Your task to perform on an android device: Go to location settings Image 0: 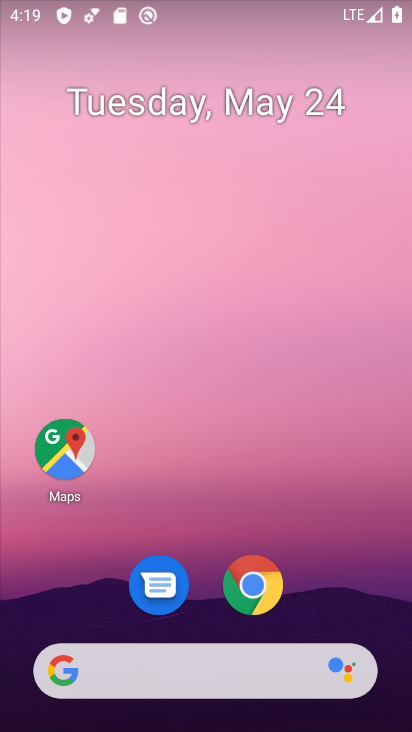
Step 0: drag from (261, 501) to (247, 54)
Your task to perform on an android device: Go to location settings Image 1: 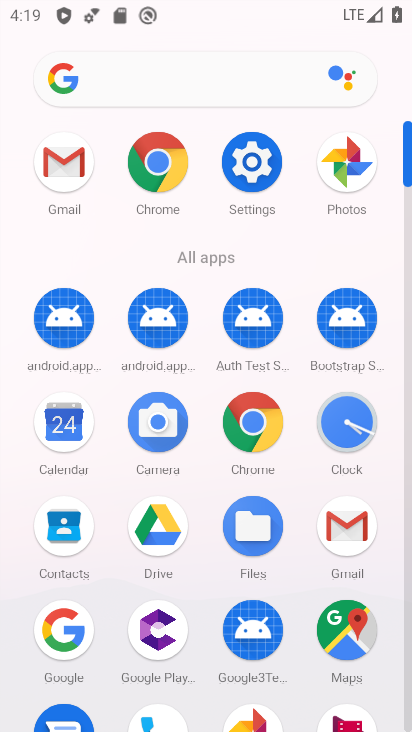
Step 1: click (242, 154)
Your task to perform on an android device: Go to location settings Image 2: 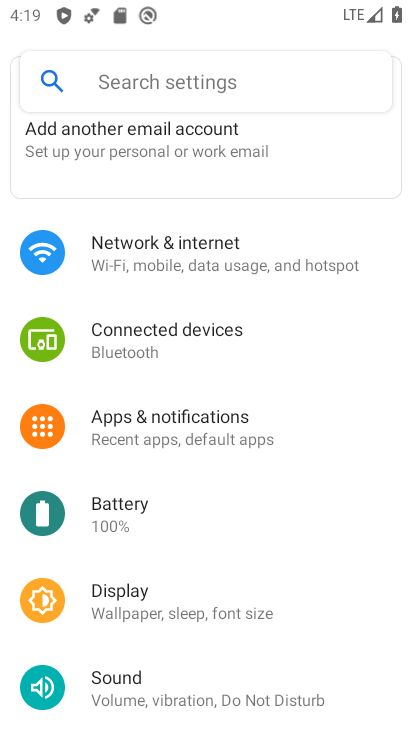
Step 2: drag from (201, 587) to (239, 64)
Your task to perform on an android device: Go to location settings Image 3: 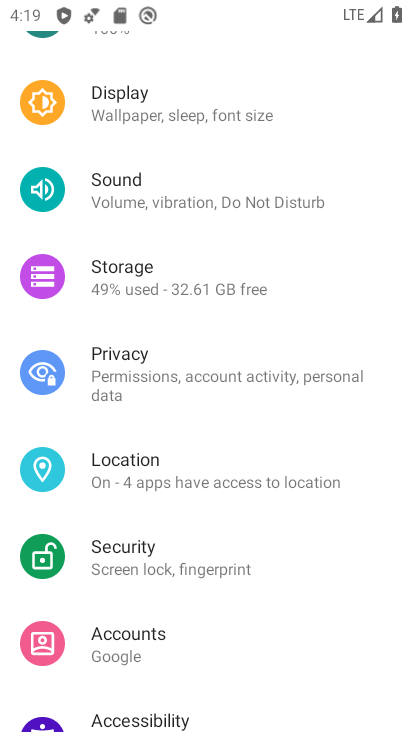
Step 3: click (196, 473)
Your task to perform on an android device: Go to location settings Image 4: 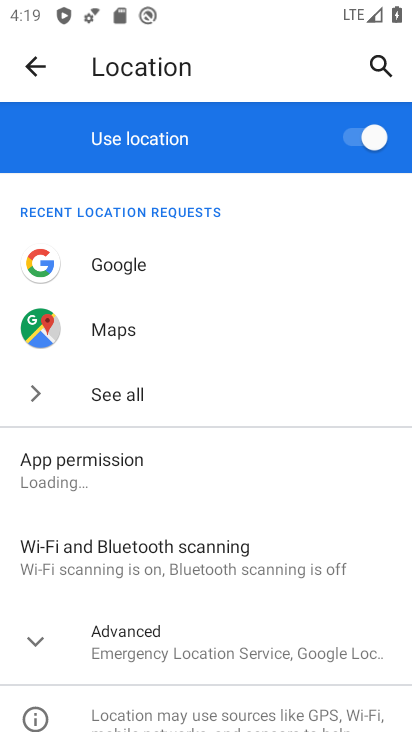
Step 4: task complete